Your task to perform on an android device: Open display settings Image 0: 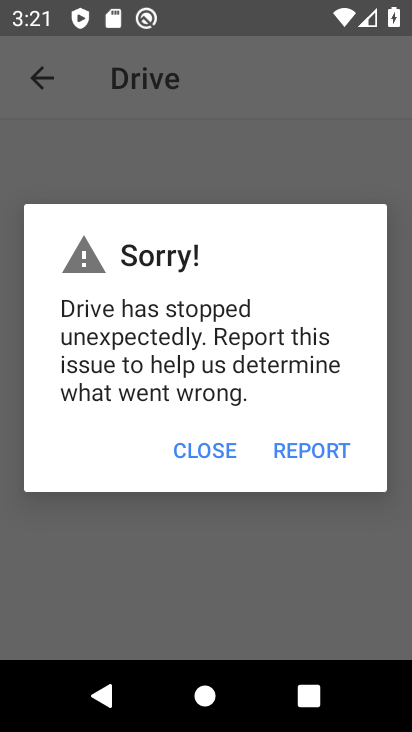
Step 0: click (170, 587)
Your task to perform on an android device: Open display settings Image 1: 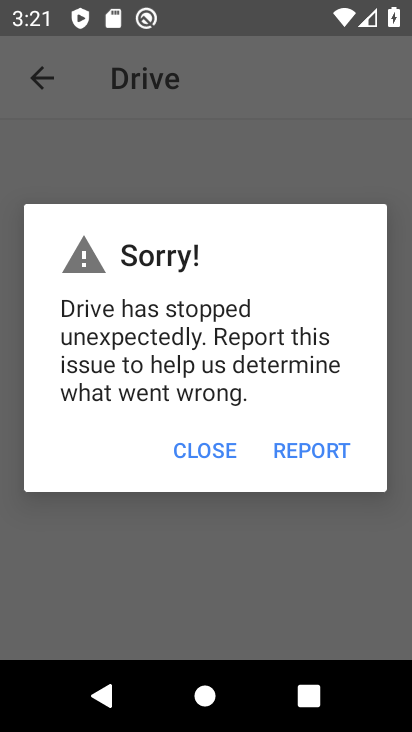
Step 1: press home button
Your task to perform on an android device: Open display settings Image 2: 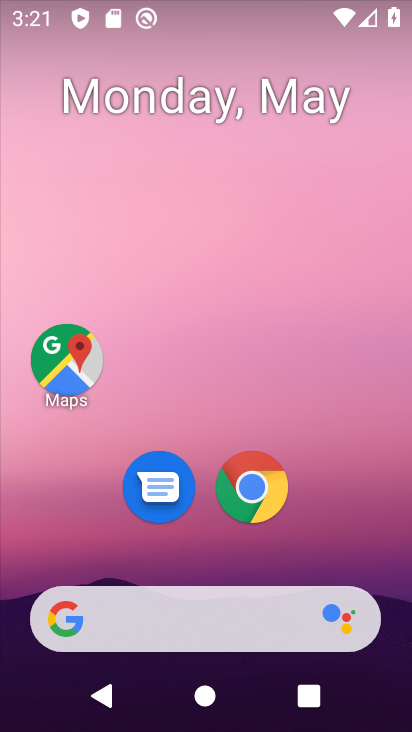
Step 2: drag from (154, 579) to (227, 156)
Your task to perform on an android device: Open display settings Image 3: 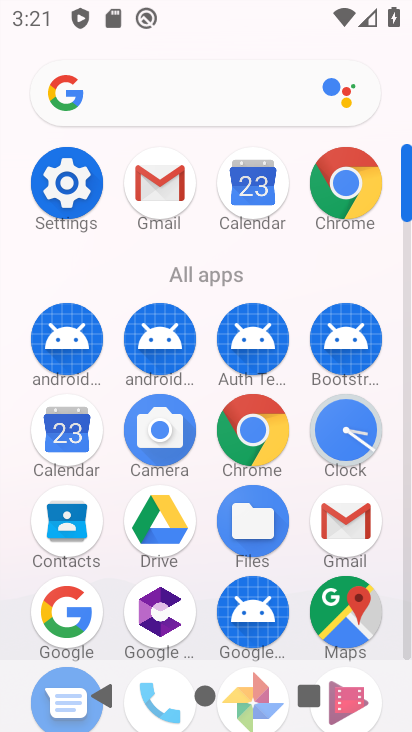
Step 3: click (55, 180)
Your task to perform on an android device: Open display settings Image 4: 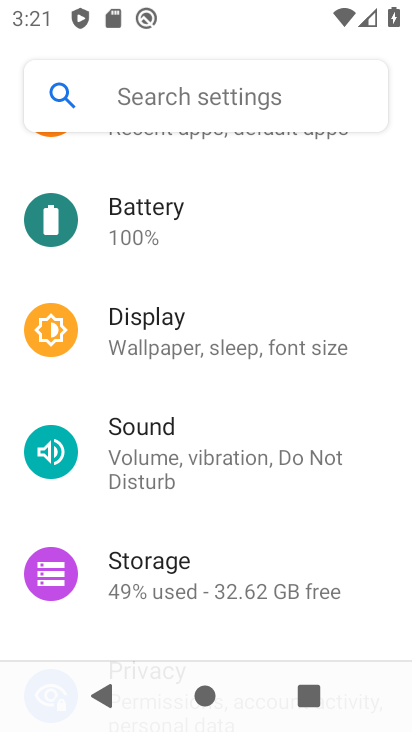
Step 4: drag from (189, 577) to (256, 161)
Your task to perform on an android device: Open display settings Image 5: 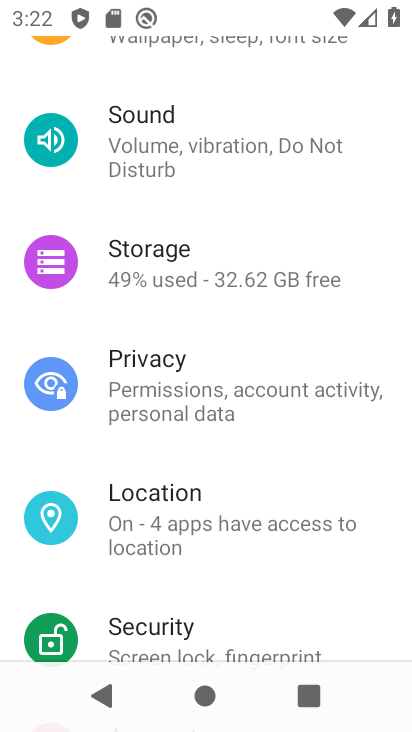
Step 5: drag from (180, 584) to (233, 211)
Your task to perform on an android device: Open display settings Image 6: 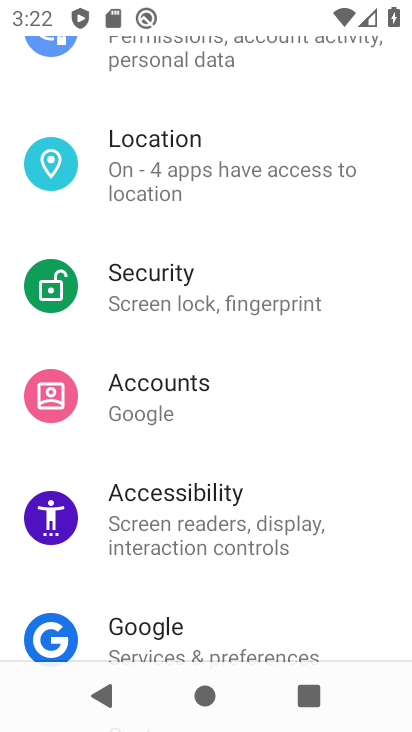
Step 6: drag from (196, 573) to (238, 194)
Your task to perform on an android device: Open display settings Image 7: 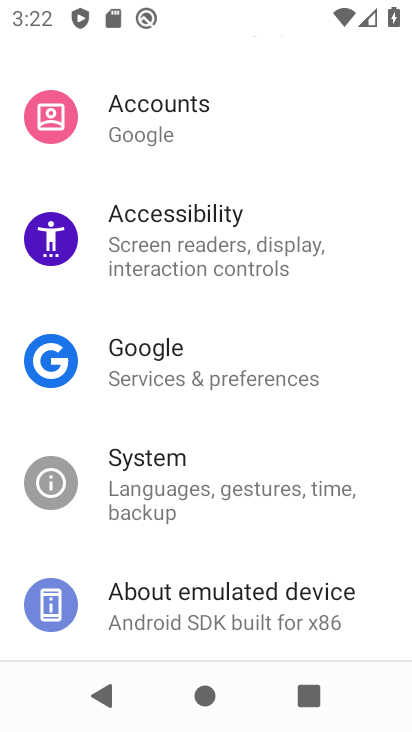
Step 7: drag from (175, 608) to (196, 210)
Your task to perform on an android device: Open display settings Image 8: 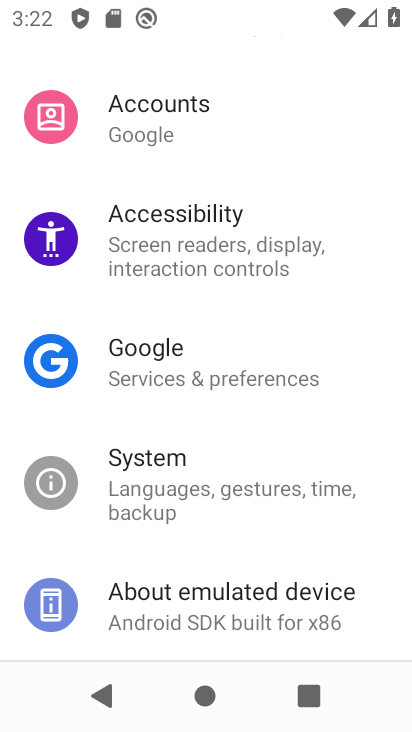
Step 8: drag from (204, 118) to (221, 539)
Your task to perform on an android device: Open display settings Image 9: 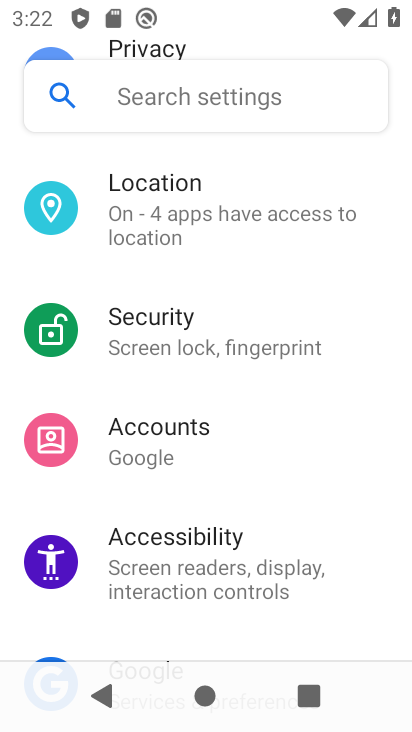
Step 9: drag from (206, 188) to (230, 533)
Your task to perform on an android device: Open display settings Image 10: 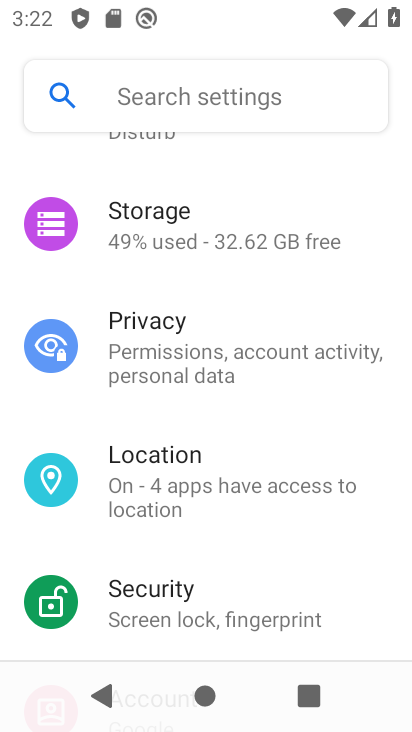
Step 10: drag from (187, 201) to (208, 582)
Your task to perform on an android device: Open display settings Image 11: 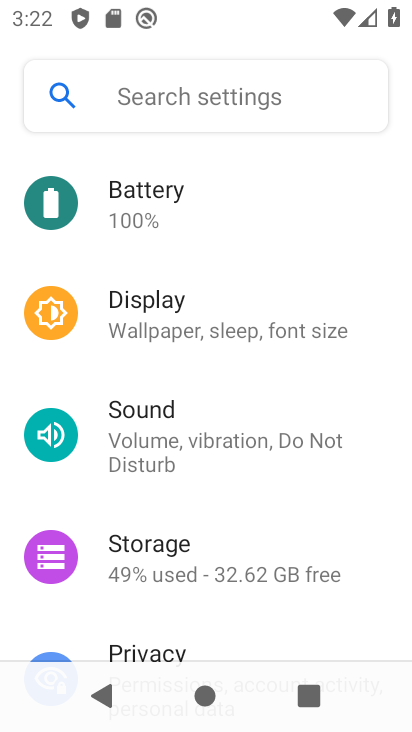
Step 11: click (167, 315)
Your task to perform on an android device: Open display settings Image 12: 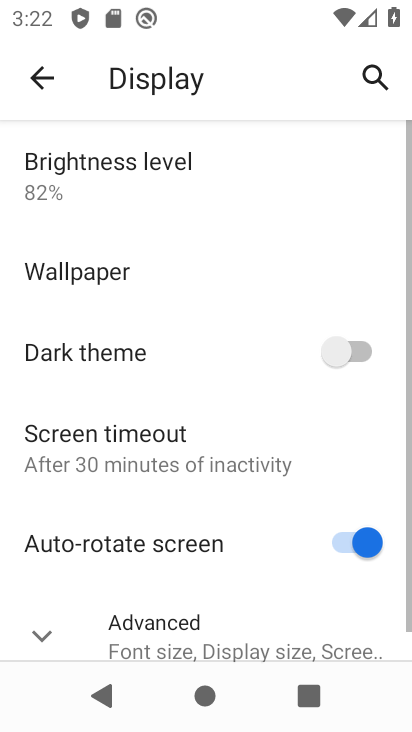
Step 12: drag from (164, 641) to (229, 284)
Your task to perform on an android device: Open display settings Image 13: 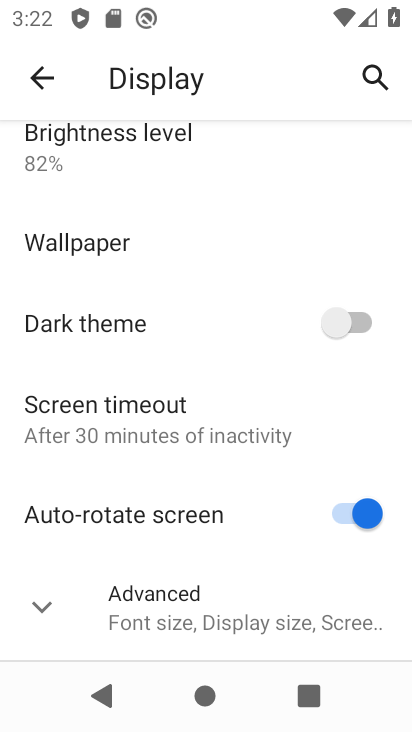
Step 13: click (160, 606)
Your task to perform on an android device: Open display settings Image 14: 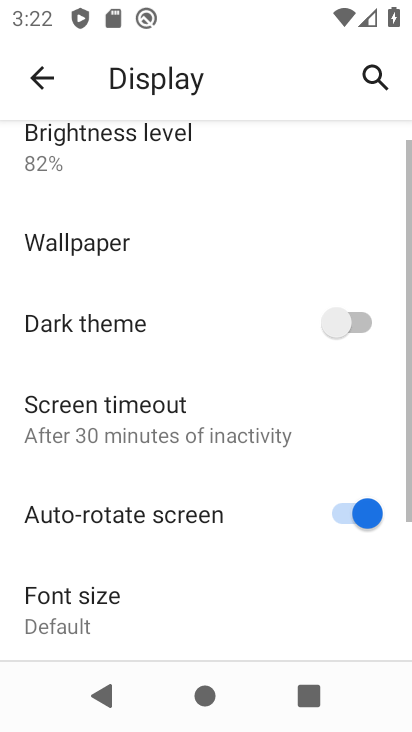
Step 14: task complete